Your task to perform on an android device: When is my next meeting? Image 0: 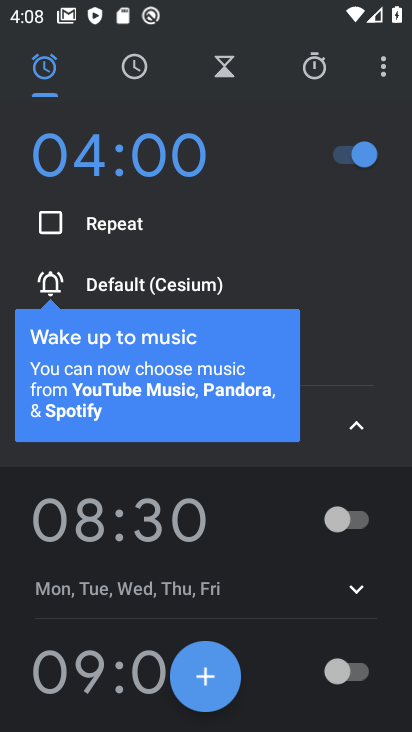
Step 0: click (320, 232)
Your task to perform on an android device: When is my next meeting? Image 1: 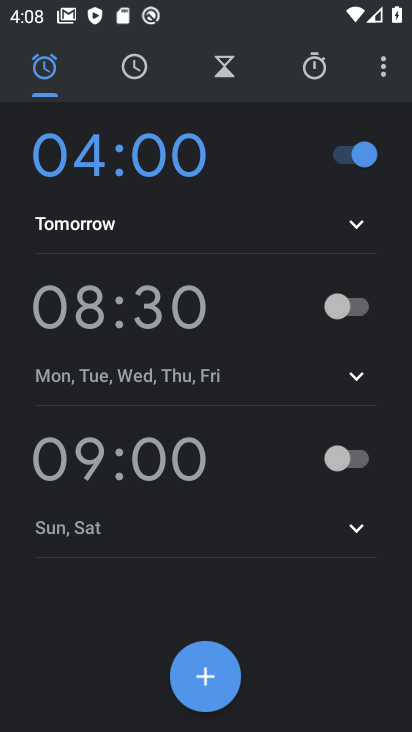
Step 1: press home button
Your task to perform on an android device: When is my next meeting? Image 2: 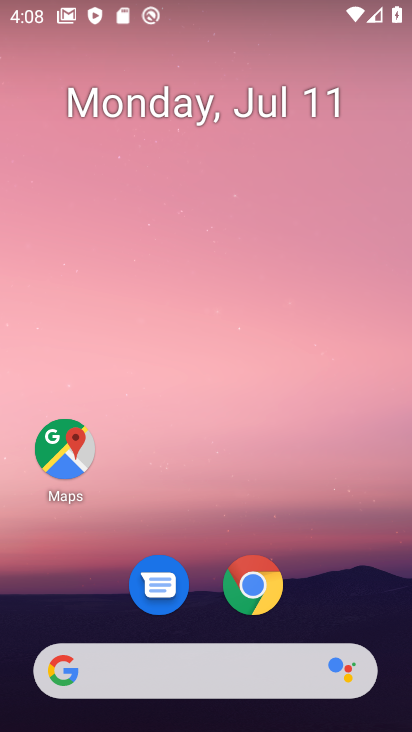
Step 2: drag from (256, 495) to (198, 6)
Your task to perform on an android device: When is my next meeting? Image 3: 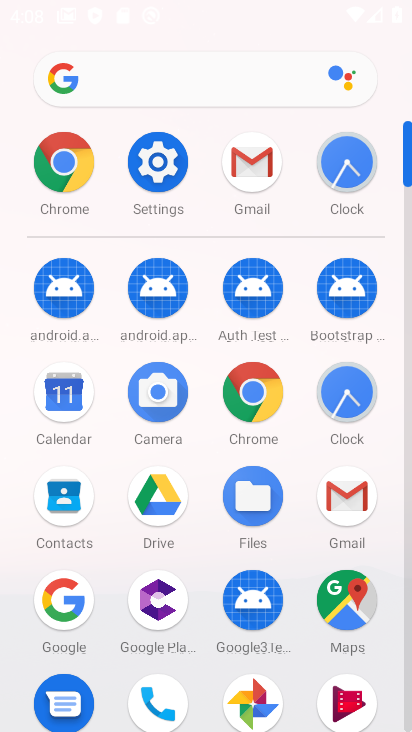
Step 3: click (60, 398)
Your task to perform on an android device: When is my next meeting? Image 4: 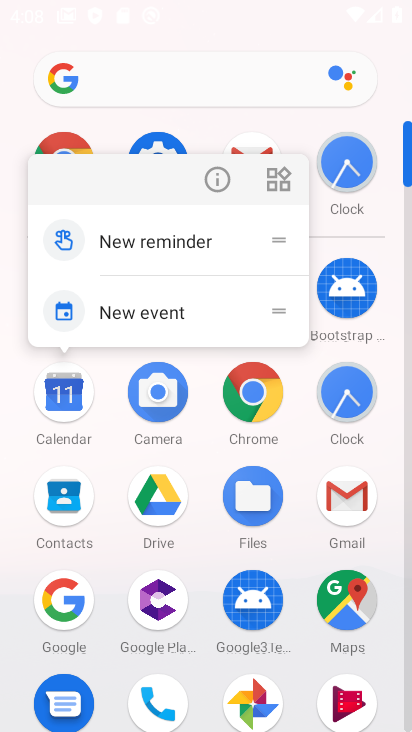
Step 4: click (60, 387)
Your task to perform on an android device: When is my next meeting? Image 5: 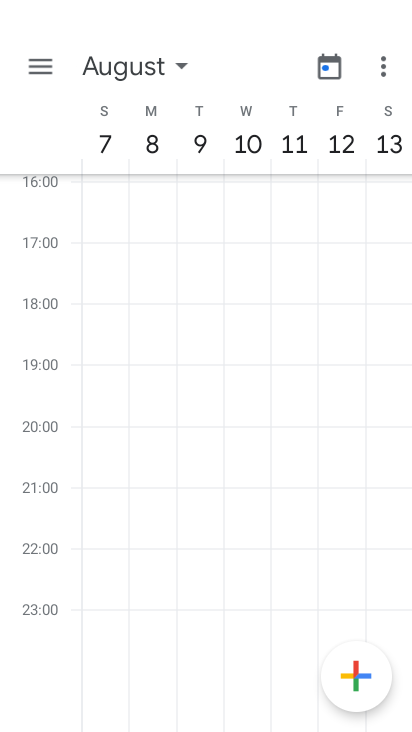
Step 5: click (112, 149)
Your task to perform on an android device: When is my next meeting? Image 6: 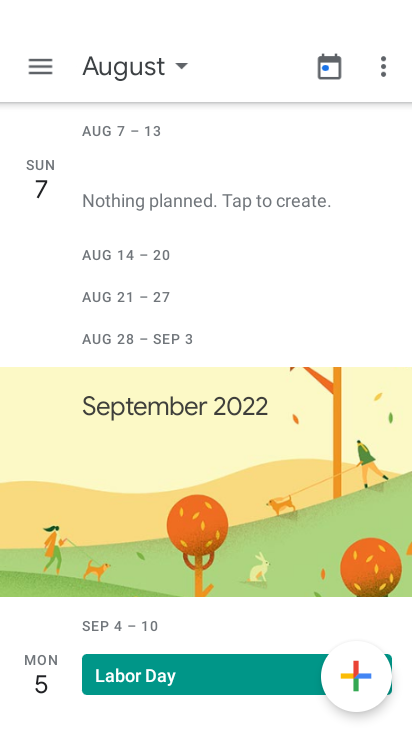
Step 6: task complete